Your task to perform on an android device: Open settings Image 0: 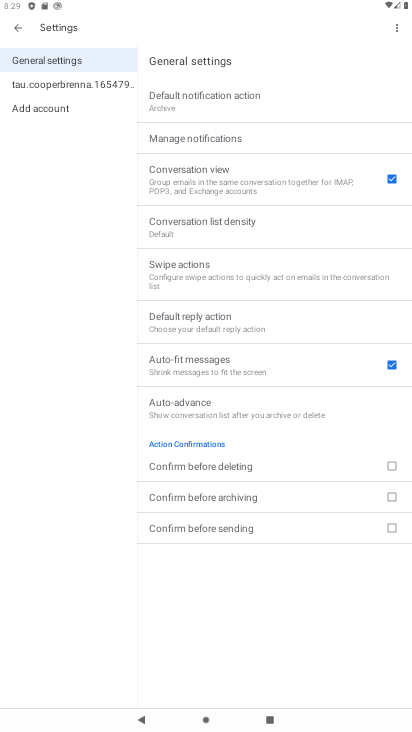
Step 0: press home button
Your task to perform on an android device: Open settings Image 1: 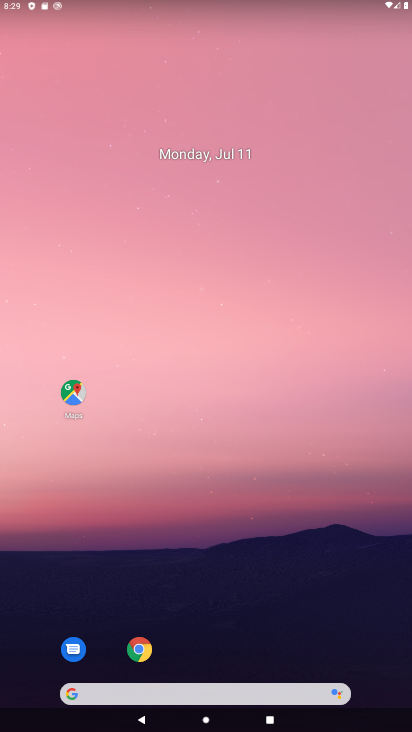
Step 1: drag from (176, 593) to (307, 116)
Your task to perform on an android device: Open settings Image 2: 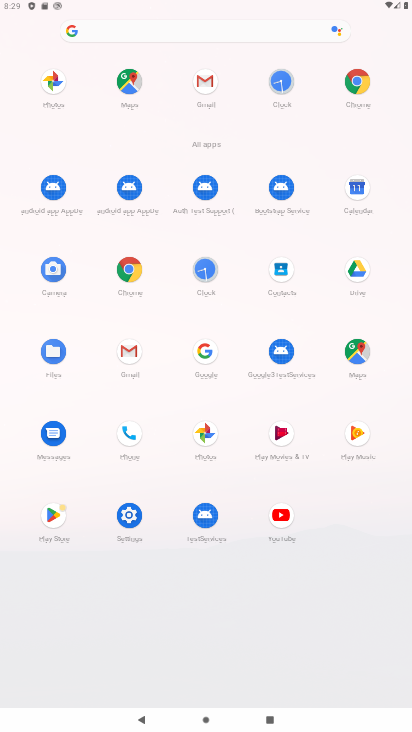
Step 2: click (133, 522)
Your task to perform on an android device: Open settings Image 3: 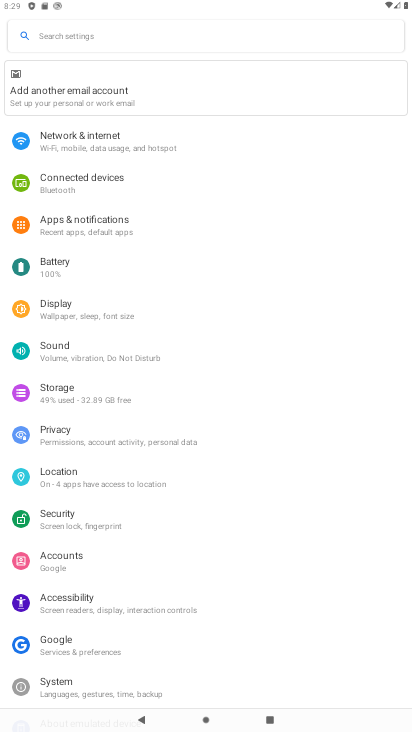
Step 3: task complete